Your task to perform on an android device: Check the news Image 0: 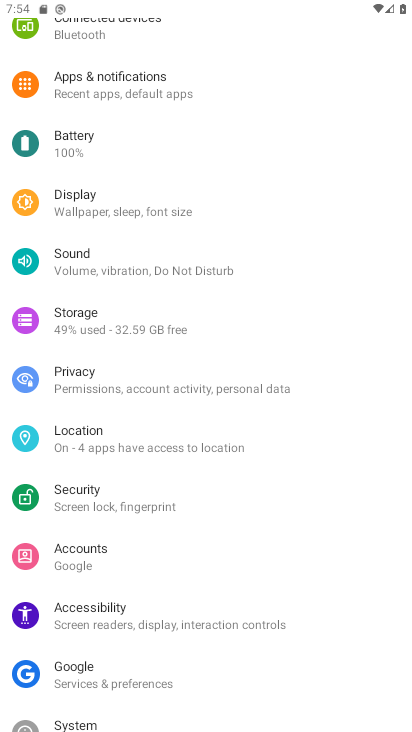
Step 0: press home button
Your task to perform on an android device: Check the news Image 1: 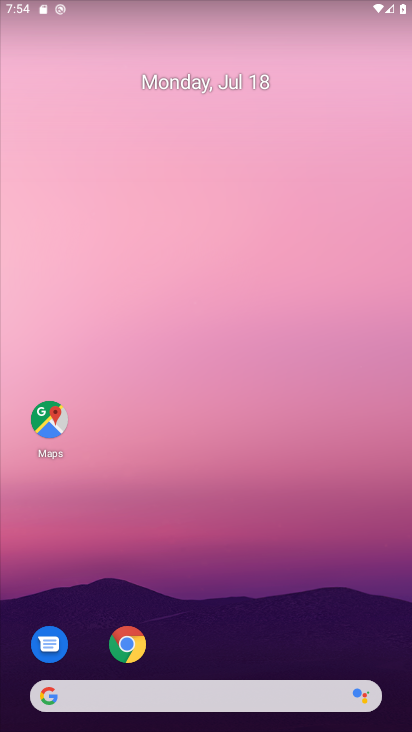
Step 1: click (161, 703)
Your task to perform on an android device: Check the news Image 2: 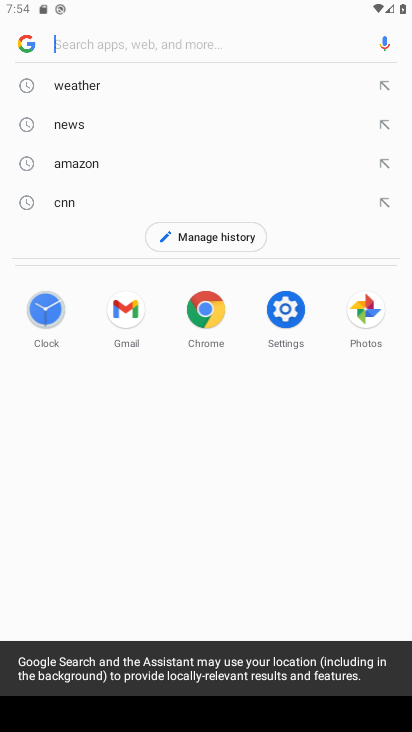
Step 2: type "news"
Your task to perform on an android device: Check the news Image 3: 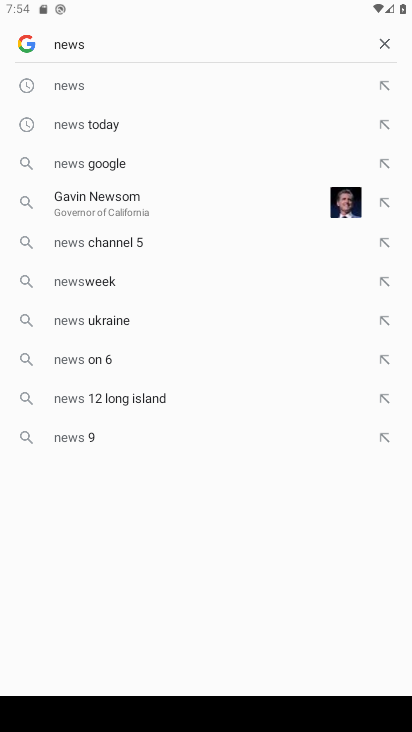
Step 3: click (96, 83)
Your task to perform on an android device: Check the news Image 4: 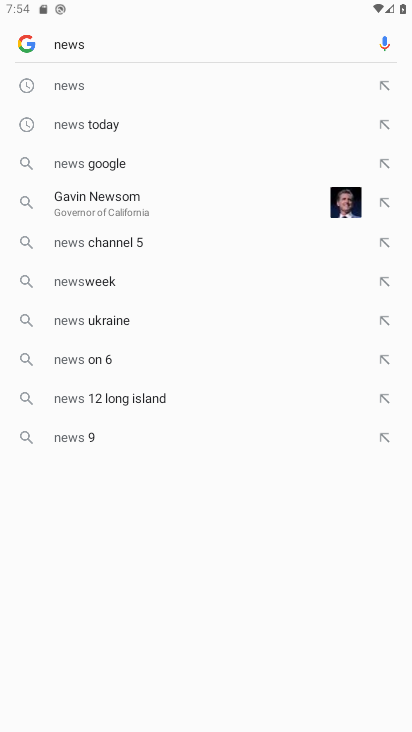
Step 4: task complete